Your task to perform on an android device: What is the recent news? Image 0: 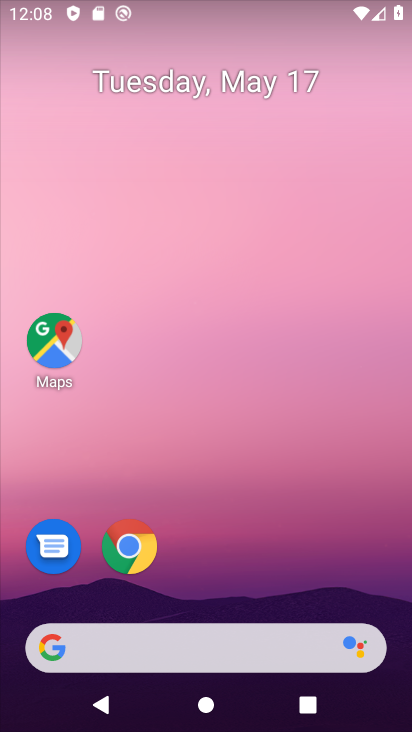
Step 0: drag from (256, 438) to (282, 140)
Your task to perform on an android device: What is the recent news? Image 1: 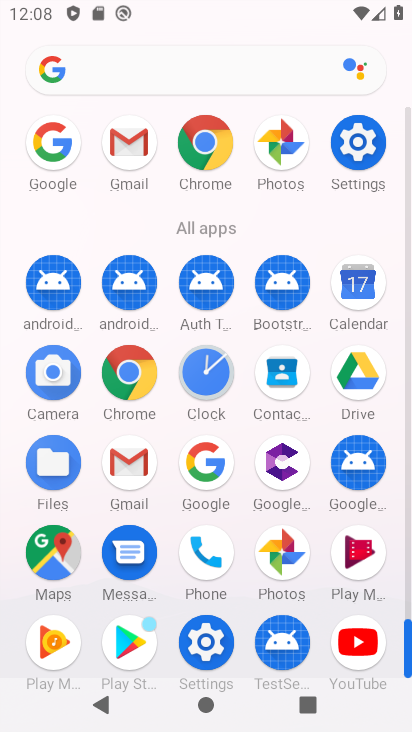
Step 1: click (218, 153)
Your task to perform on an android device: What is the recent news? Image 2: 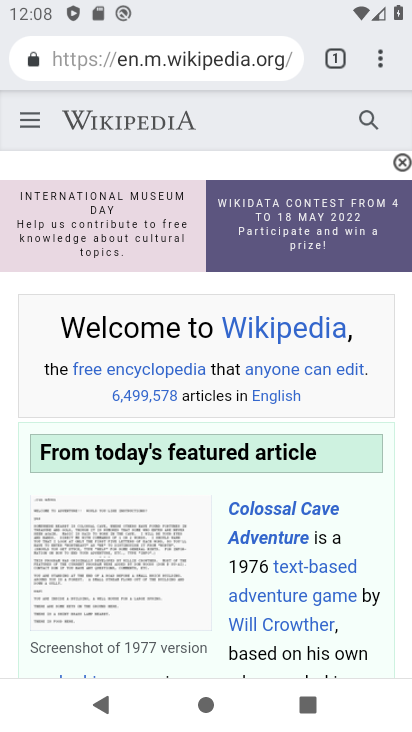
Step 2: task complete